Your task to perform on an android device: delete a single message in the gmail app Image 0: 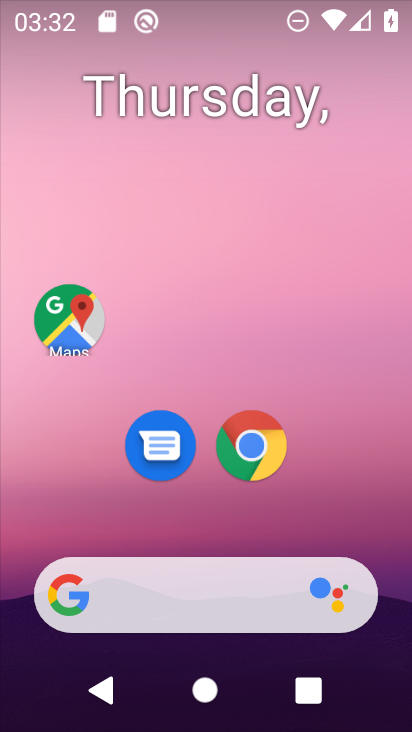
Step 0: drag from (359, 549) to (370, 10)
Your task to perform on an android device: delete a single message in the gmail app Image 1: 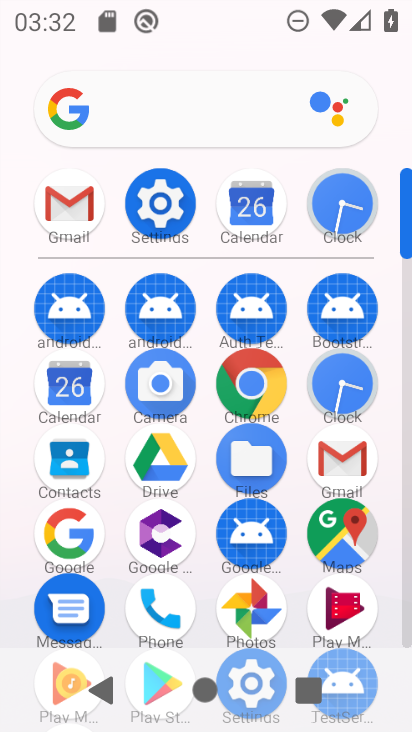
Step 1: click (67, 217)
Your task to perform on an android device: delete a single message in the gmail app Image 2: 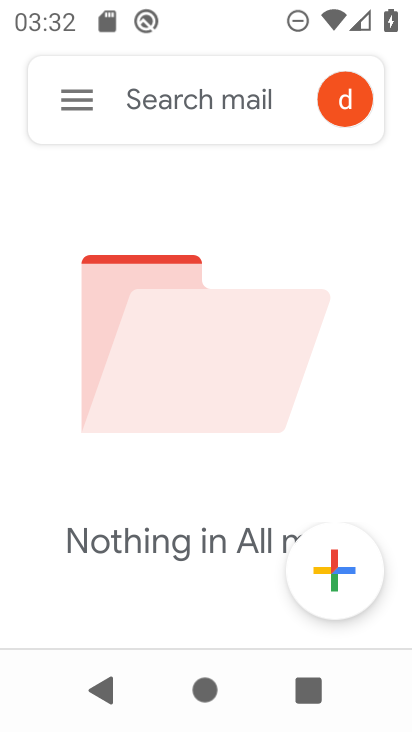
Step 2: click (69, 93)
Your task to perform on an android device: delete a single message in the gmail app Image 3: 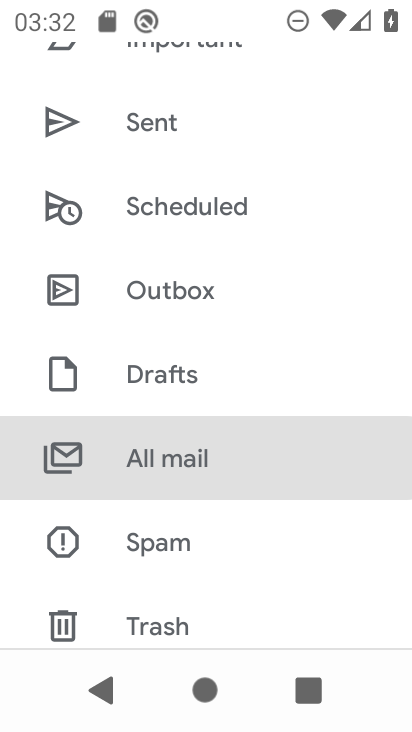
Step 3: click (137, 464)
Your task to perform on an android device: delete a single message in the gmail app Image 4: 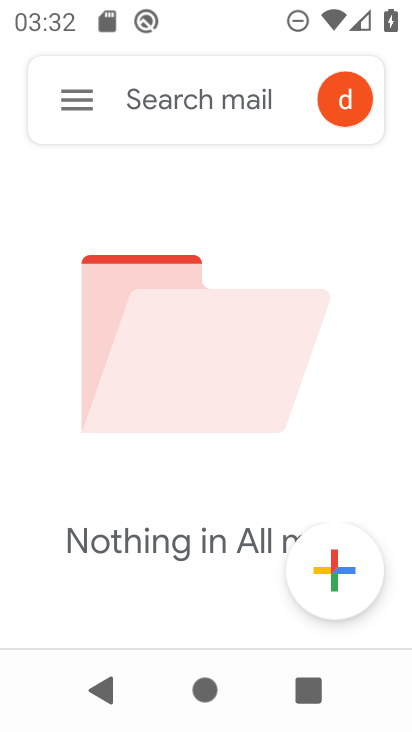
Step 4: task complete